Your task to perform on an android device: all mails in gmail Image 0: 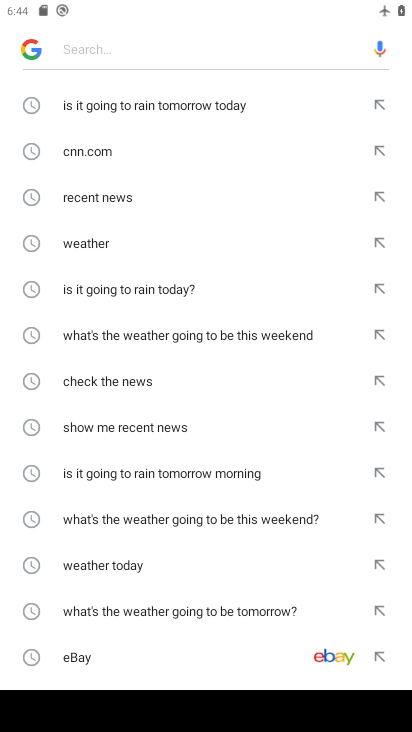
Step 0: press home button
Your task to perform on an android device: all mails in gmail Image 1: 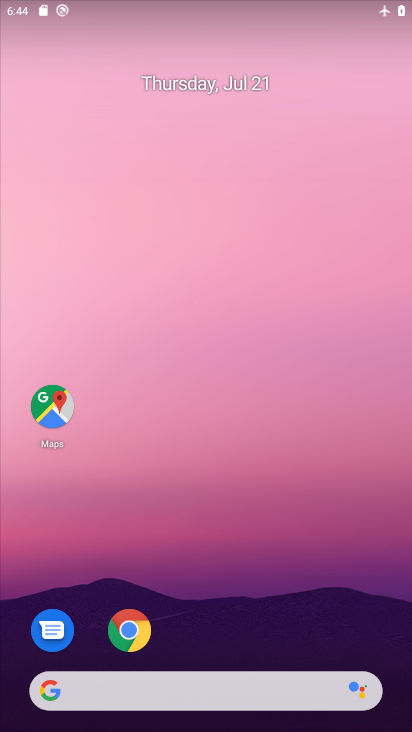
Step 1: drag from (207, 690) to (284, 210)
Your task to perform on an android device: all mails in gmail Image 2: 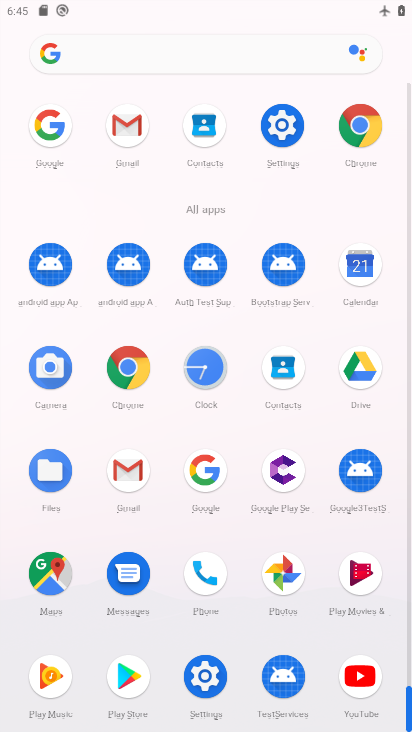
Step 2: click (127, 124)
Your task to perform on an android device: all mails in gmail Image 3: 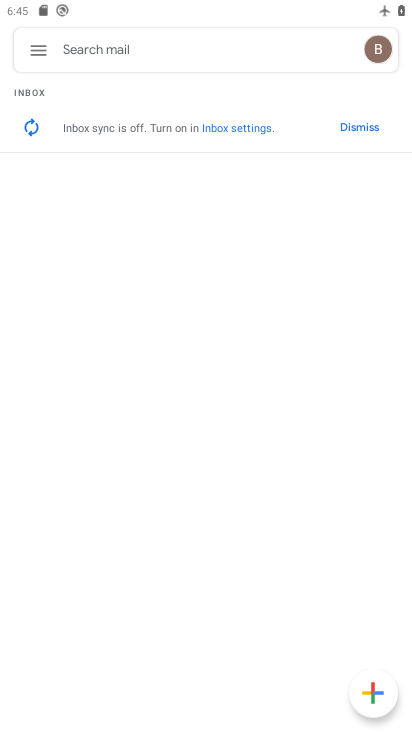
Step 3: click (38, 53)
Your task to perform on an android device: all mails in gmail Image 4: 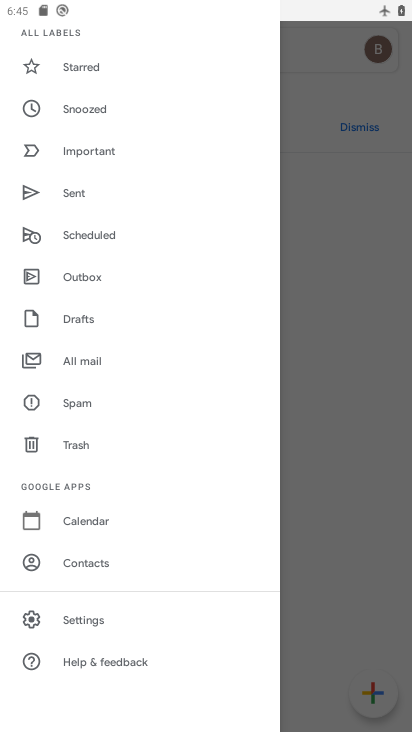
Step 4: click (77, 357)
Your task to perform on an android device: all mails in gmail Image 5: 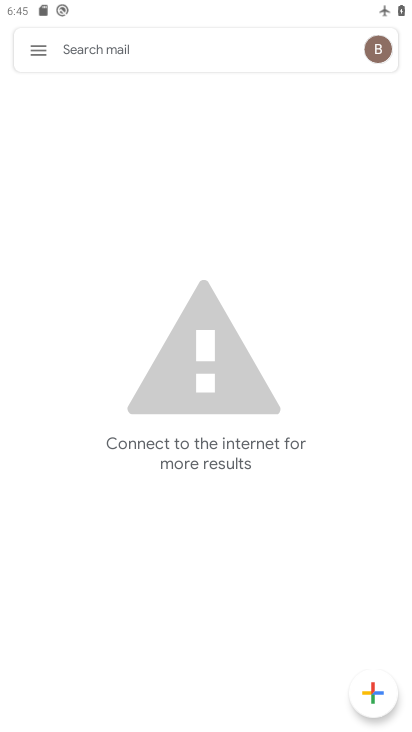
Step 5: task complete